Your task to perform on an android device: Go to network settings Image 0: 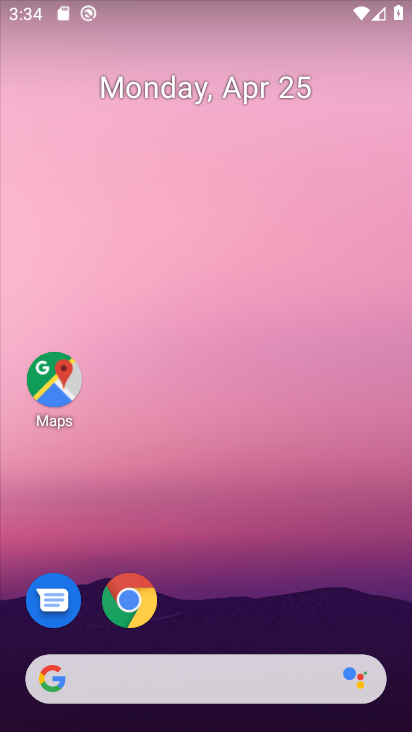
Step 0: drag from (198, 624) to (276, 57)
Your task to perform on an android device: Go to network settings Image 1: 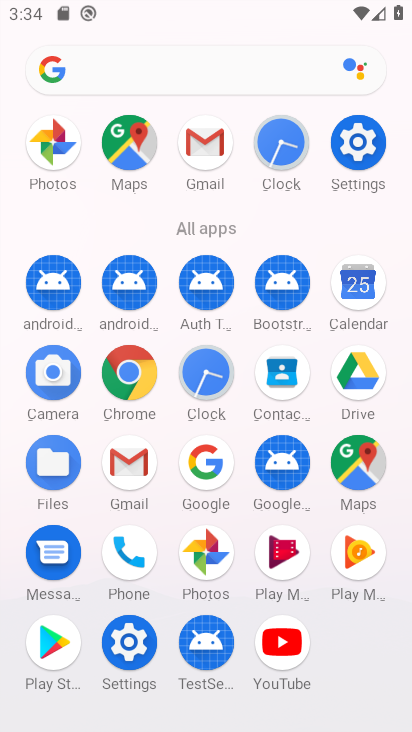
Step 1: click (348, 155)
Your task to perform on an android device: Go to network settings Image 2: 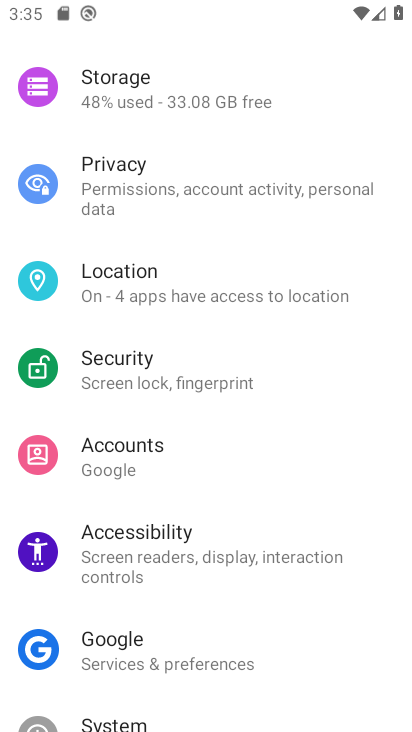
Step 2: drag from (227, 173) to (212, 719)
Your task to perform on an android device: Go to network settings Image 3: 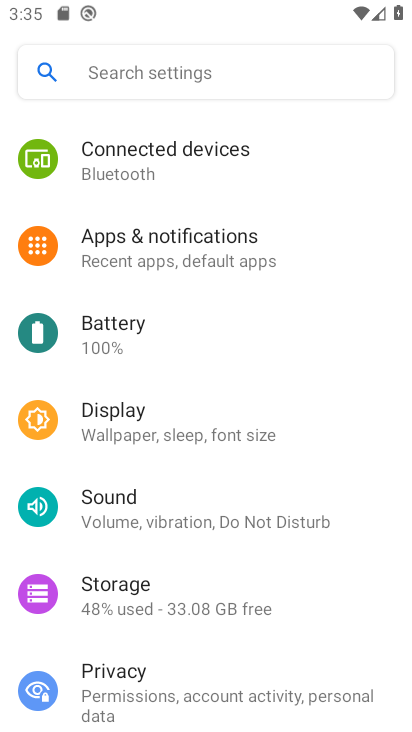
Step 3: drag from (205, 284) to (183, 705)
Your task to perform on an android device: Go to network settings Image 4: 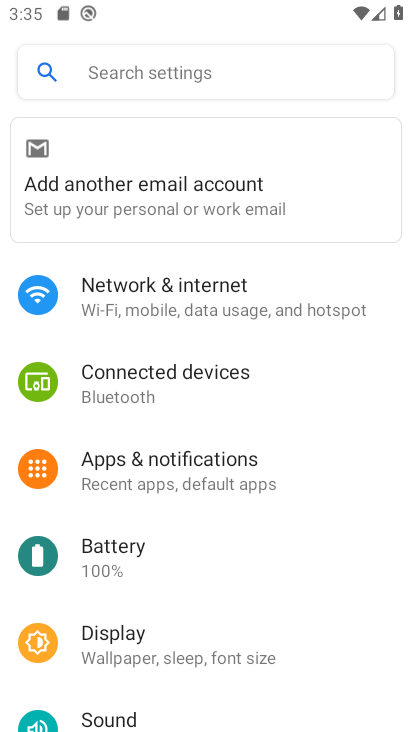
Step 4: click (169, 280)
Your task to perform on an android device: Go to network settings Image 5: 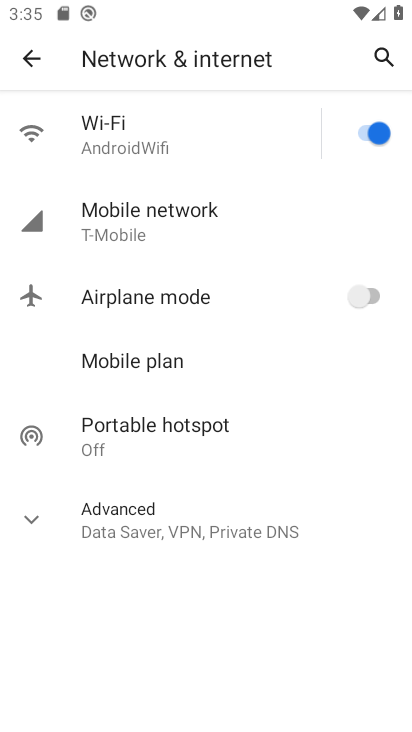
Step 5: click (184, 223)
Your task to perform on an android device: Go to network settings Image 6: 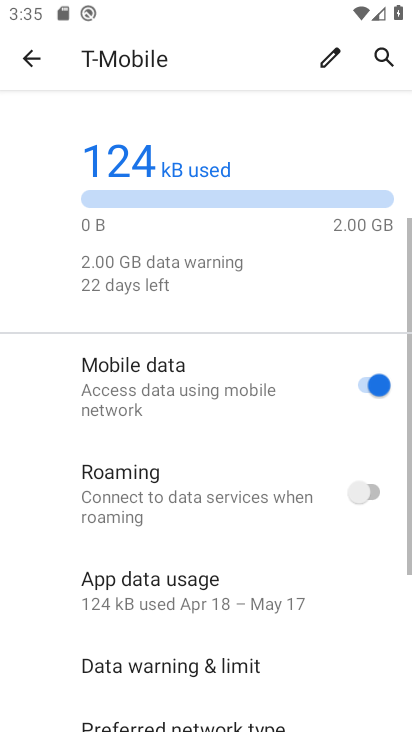
Step 6: task complete